Your task to perform on an android device: Open battery settings Image 0: 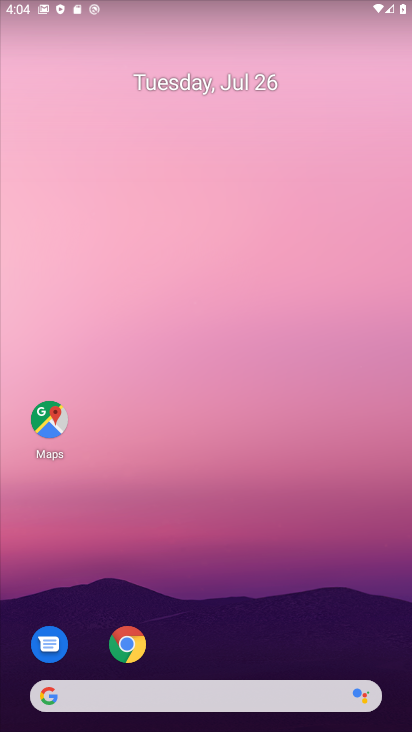
Step 0: drag from (378, 646) to (359, 76)
Your task to perform on an android device: Open battery settings Image 1: 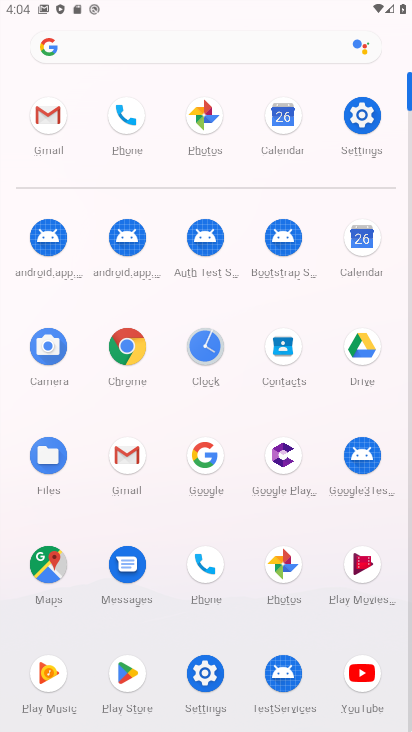
Step 1: click (205, 676)
Your task to perform on an android device: Open battery settings Image 2: 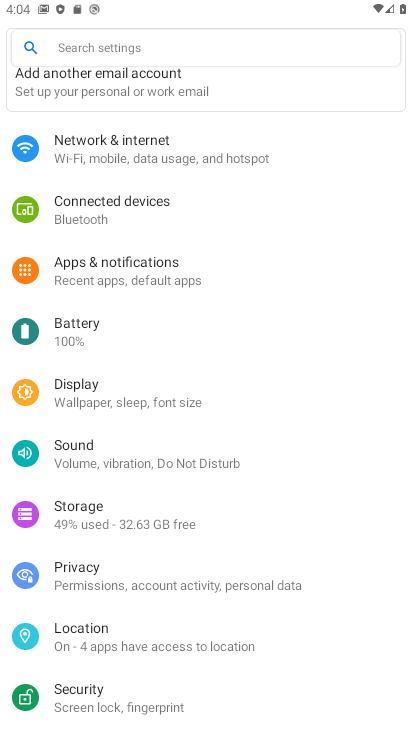
Step 2: click (68, 325)
Your task to perform on an android device: Open battery settings Image 3: 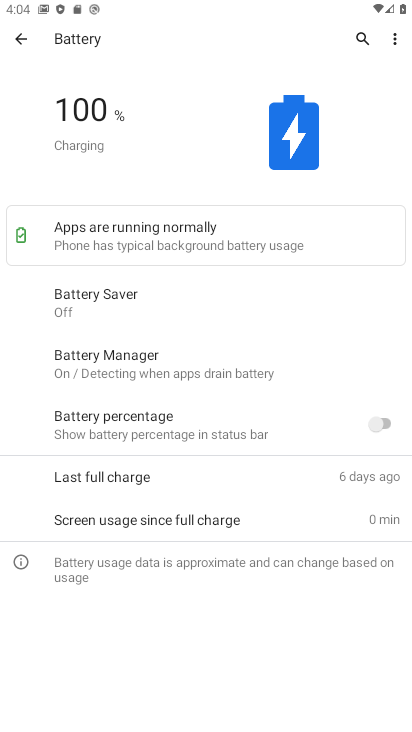
Step 3: task complete